Your task to perform on an android device: View the shopping cart on ebay.com. Image 0: 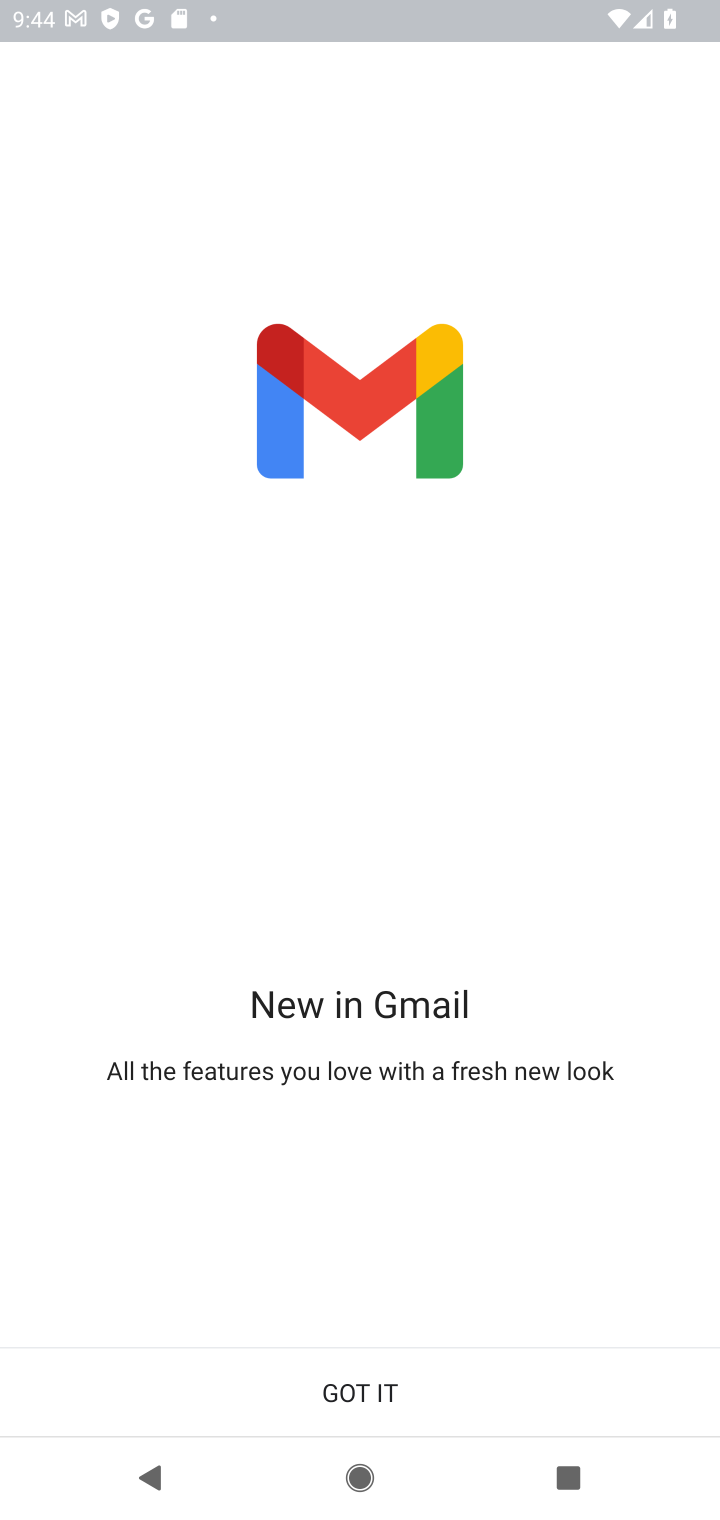
Step 0: press home button
Your task to perform on an android device: View the shopping cart on ebay.com. Image 1: 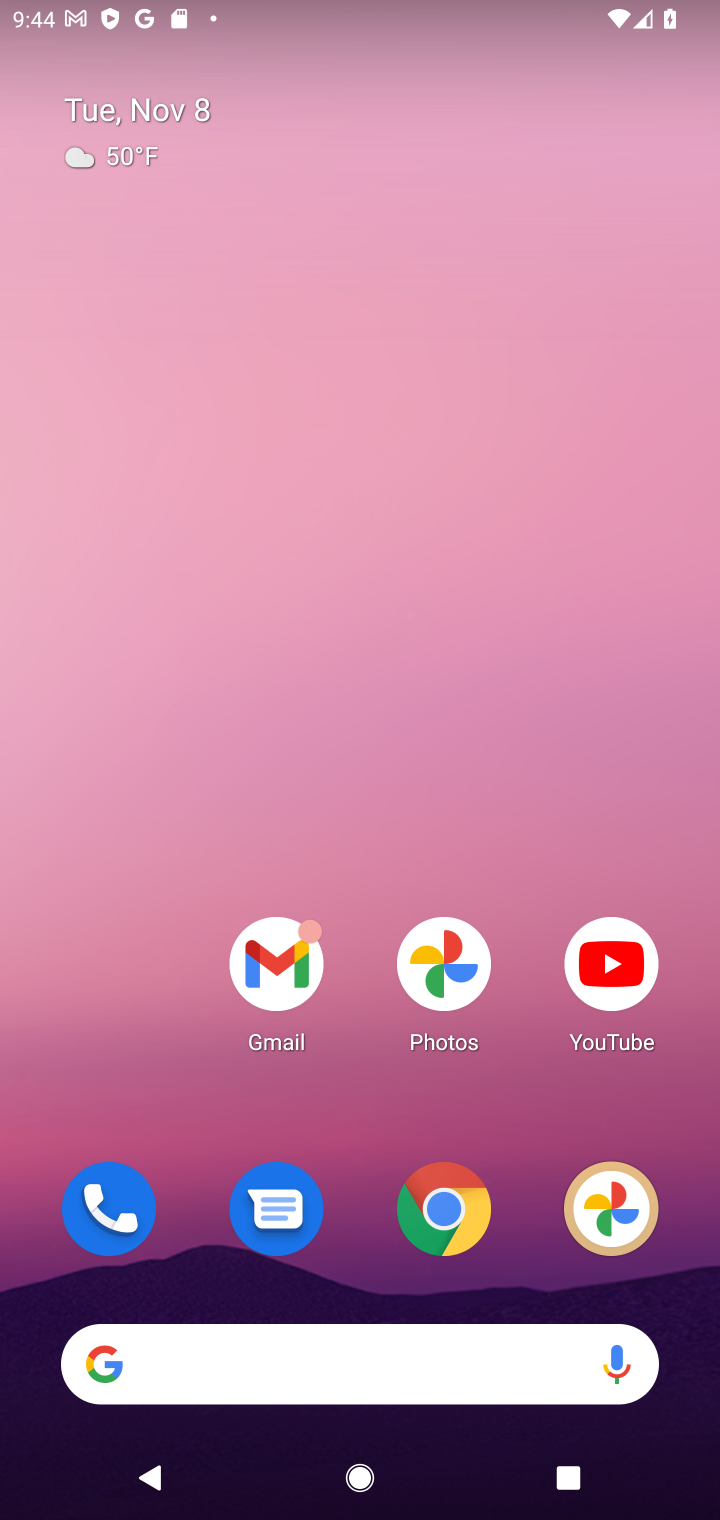
Step 1: click (448, 1202)
Your task to perform on an android device: View the shopping cart on ebay.com. Image 2: 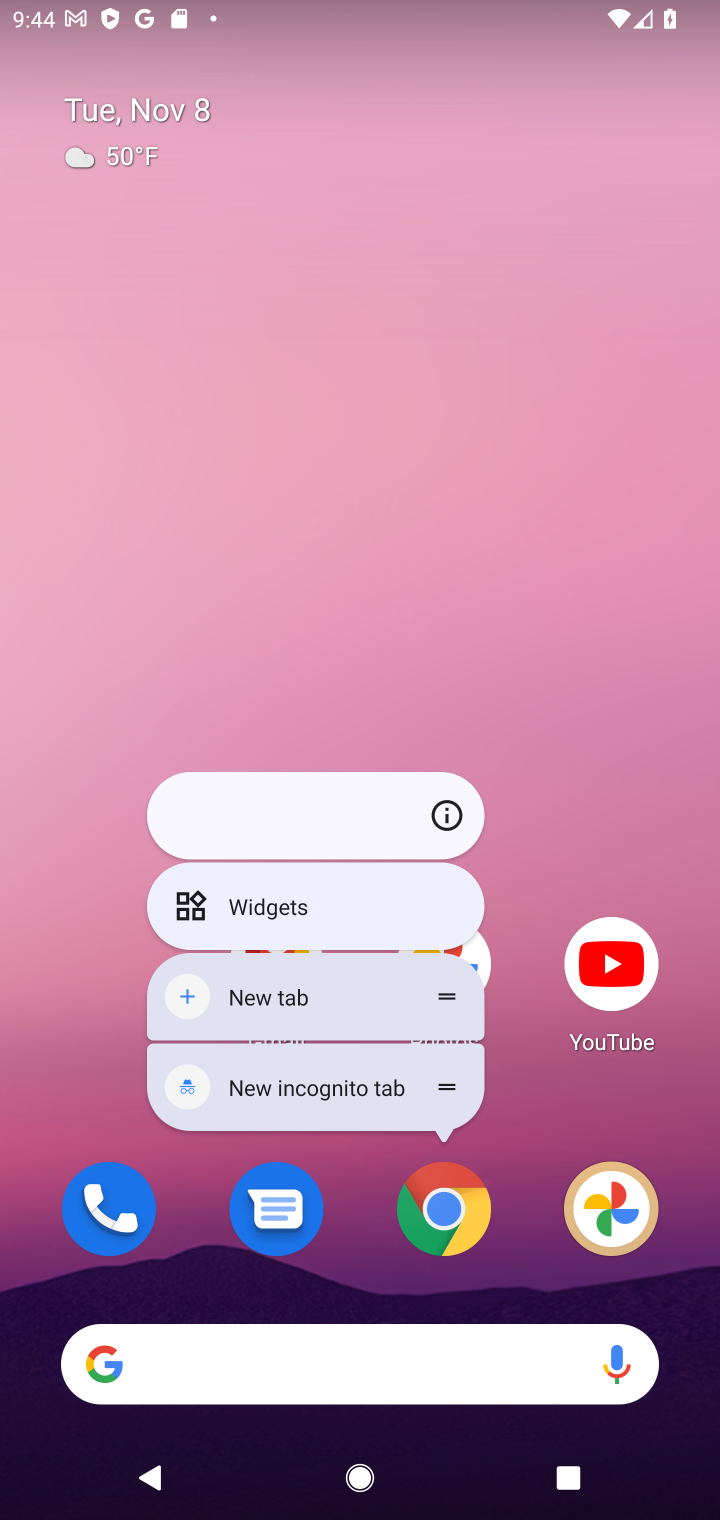
Step 2: click (435, 1204)
Your task to perform on an android device: View the shopping cart on ebay.com. Image 3: 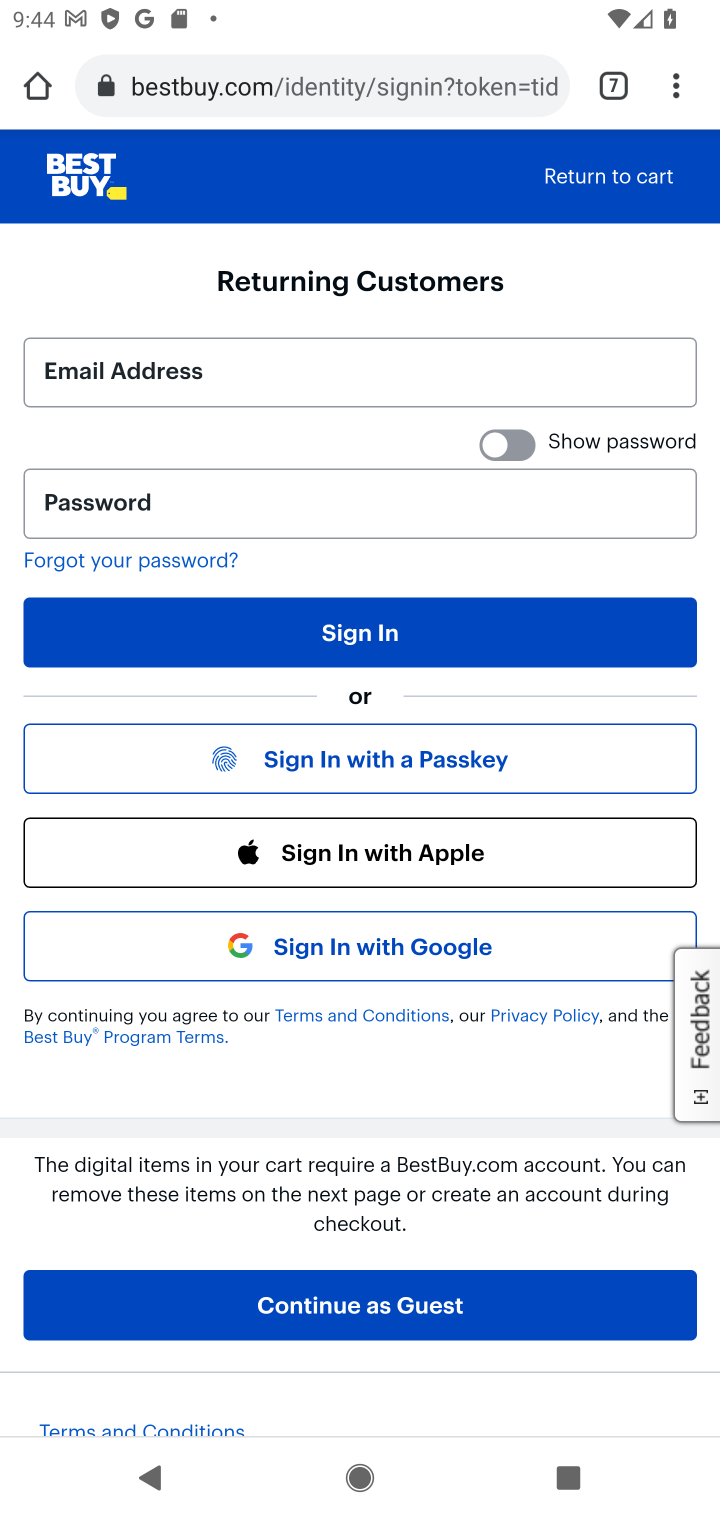
Step 3: click (610, 76)
Your task to perform on an android device: View the shopping cart on ebay.com. Image 4: 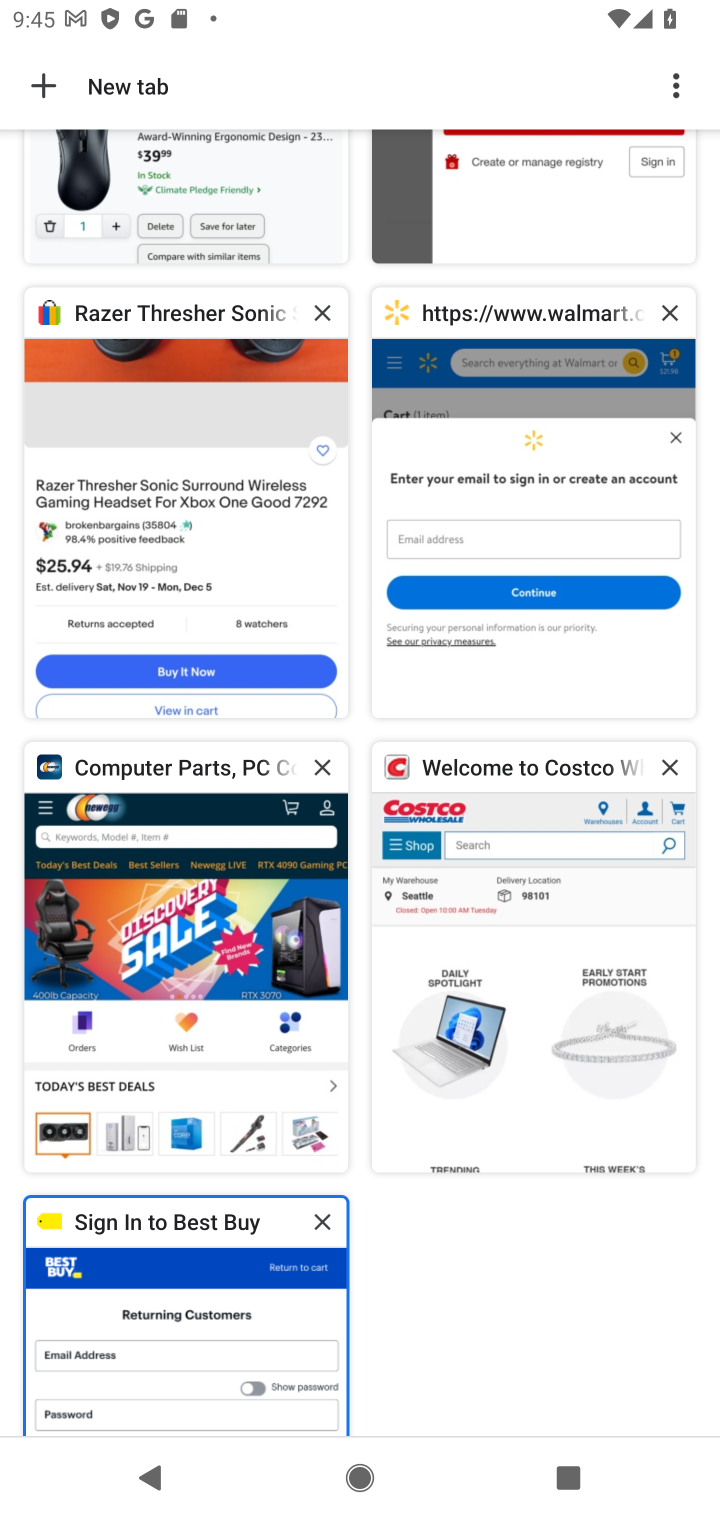
Step 4: click (205, 476)
Your task to perform on an android device: View the shopping cart on ebay.com. Image 5: 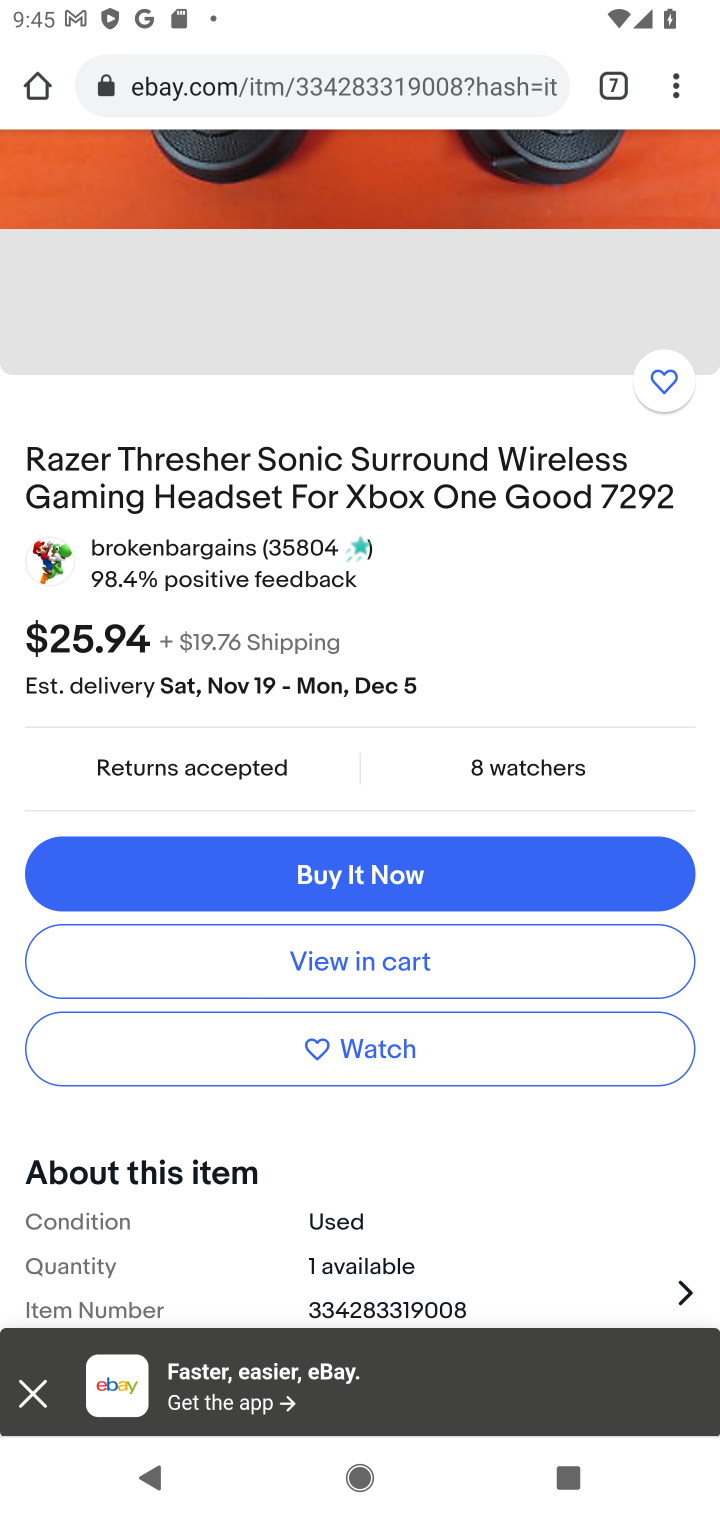
Step 5: click (391, 955)
Your task to perform on an android device: View the shopping cart on ebay.com. Image 6: 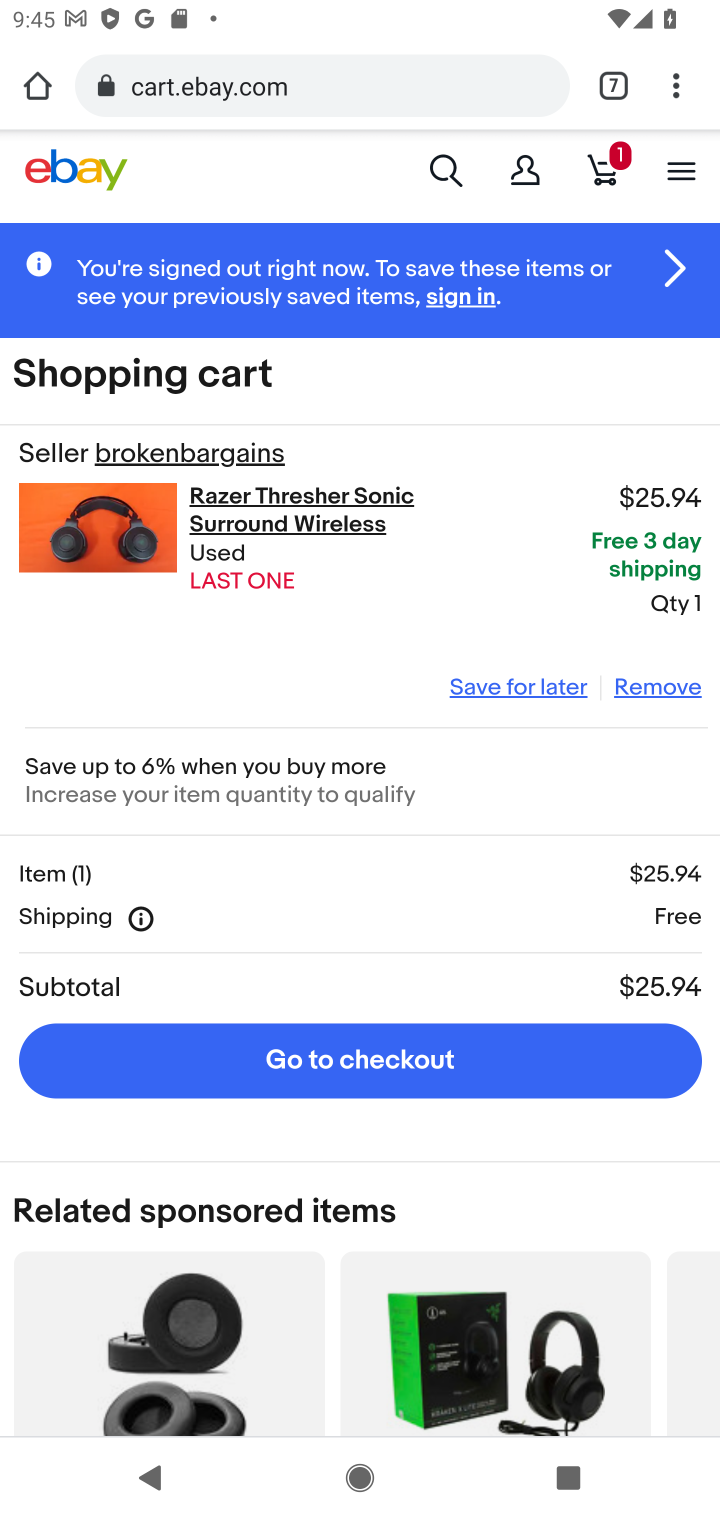
Step 6: task complete